Your task to perform on an android device: refresh tabs in the chrome app Image 0: 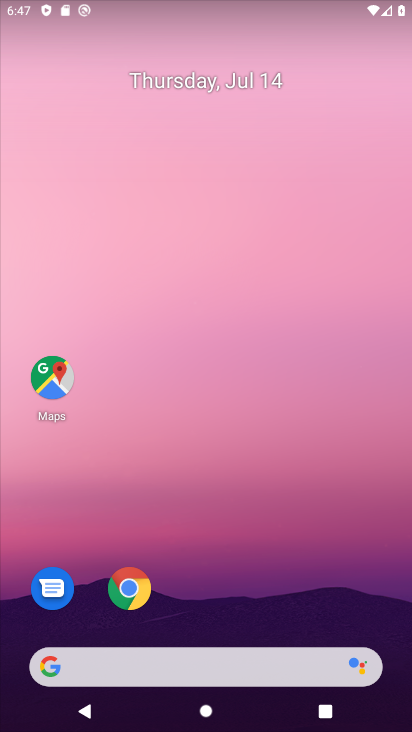
Step 0: drag from (388, 651) to (211, 12)
Your task to perform on an android device: refresh tabs in the chrome app Image 1: 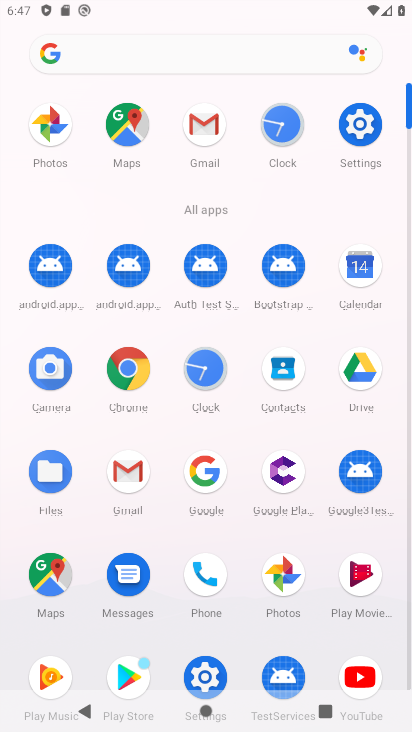
Step 1: click (110, 372)
Your task to perform on an android device: refresh tabs in the chrome app Image 2: 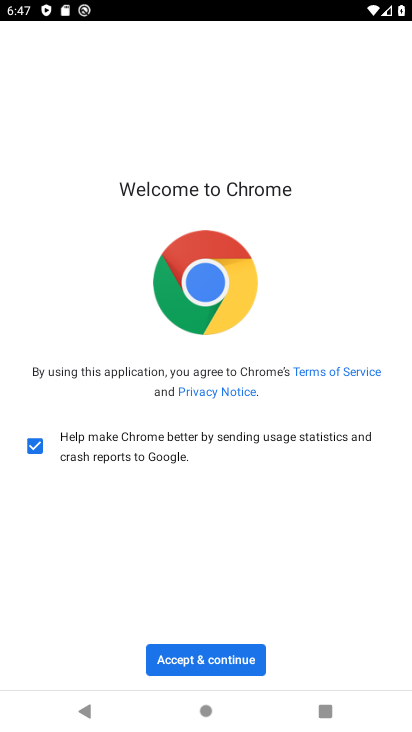
Step 2: click (218, 666)
Your task to perform on an android device: refresh tabs in the chrome app Image 3: 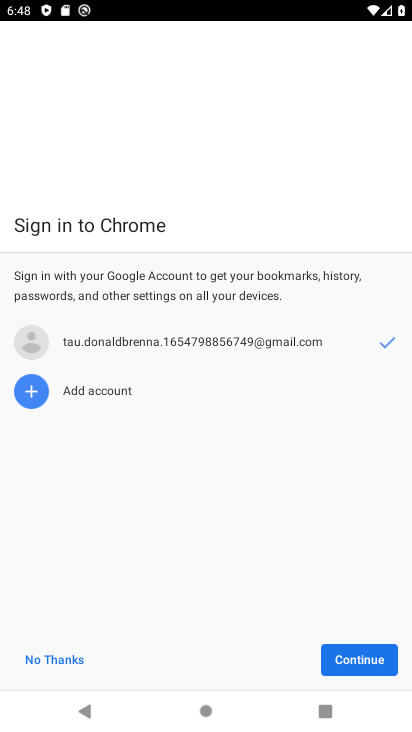
Step 3: click (355, 659)
Your task to perform on an android device: refresh tabs in the chrome app Image 4: 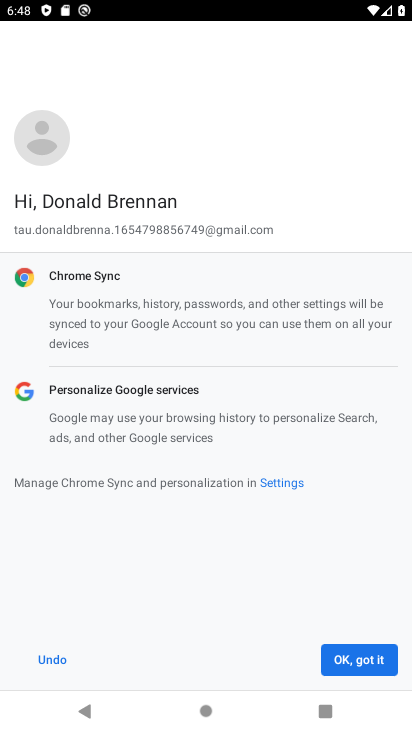
Step 4: click (357, 658)
Your task to perform on an android device: refresh tabs in the chrome app Image 5: 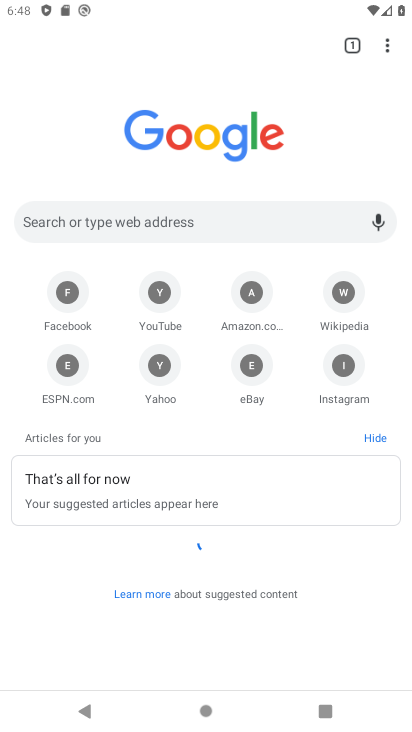
Step 5: click (387, 42)
Your task to perform on an android device: refresh tabs in the chrome app Image 6: 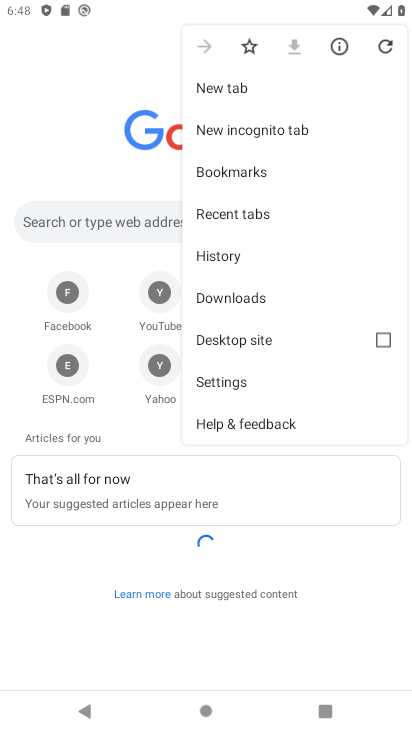
Step 6: click (386, 42)
Your task to perform on an android device: refresh tabs in the chrome app Image 7: 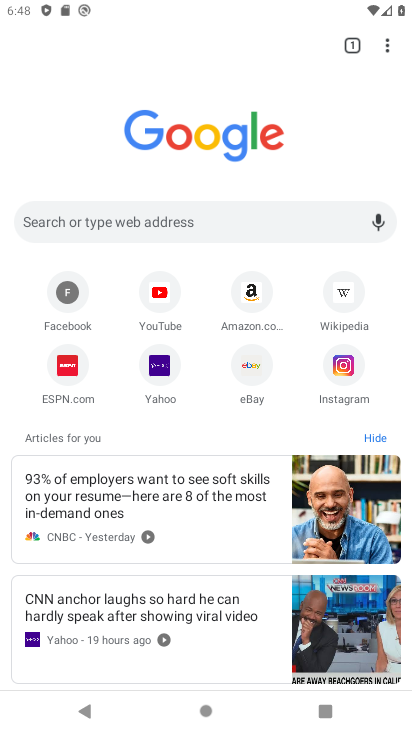
Step 7: task complete